Your task to perform on an android device: Open battery settings Image 0: 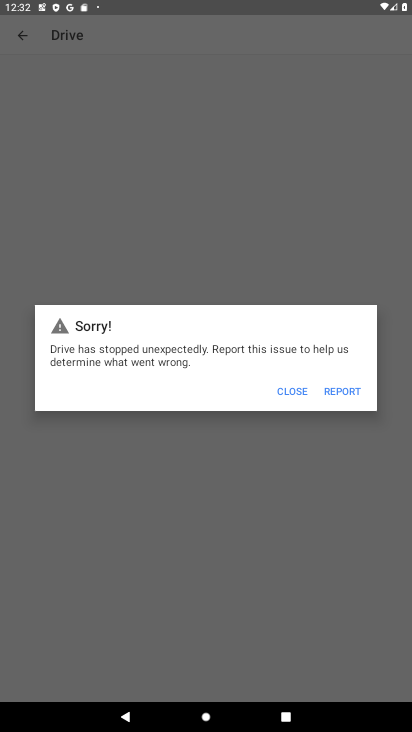
Step 0: press home button
Your task to perform on an android device: Open battery settings Image 1: 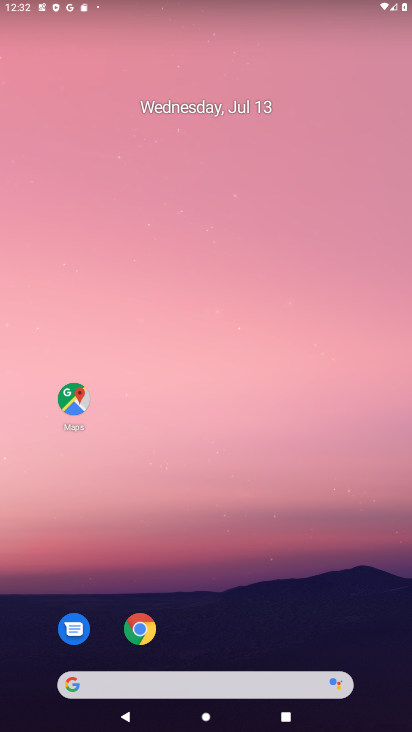
Step 1: drag from (229, 640) to (241, 195)
Your task to perform on an android device: Open battery settings Image 2: 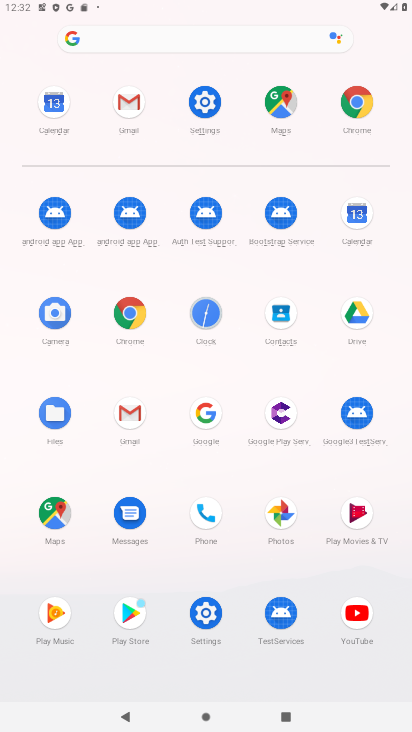
Step 2: click (206, 97)
Your task to perform on an android device: Open battery settings Image 3: 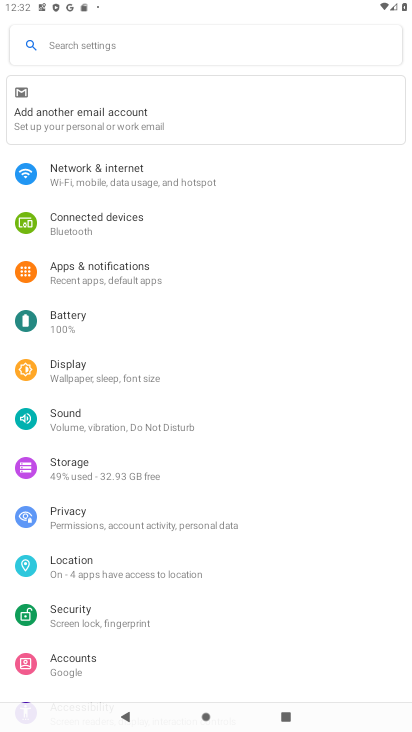
Step 3: click (54, 309)
Your task to perform on an android device: Open battery settings Image 4: 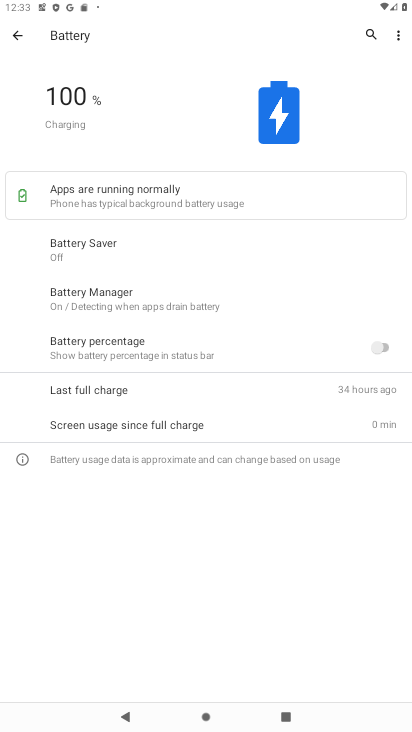
Step 4: task complete